Your task to perform on an android device: open app "Reddit" (install if not already installed) Image 0: 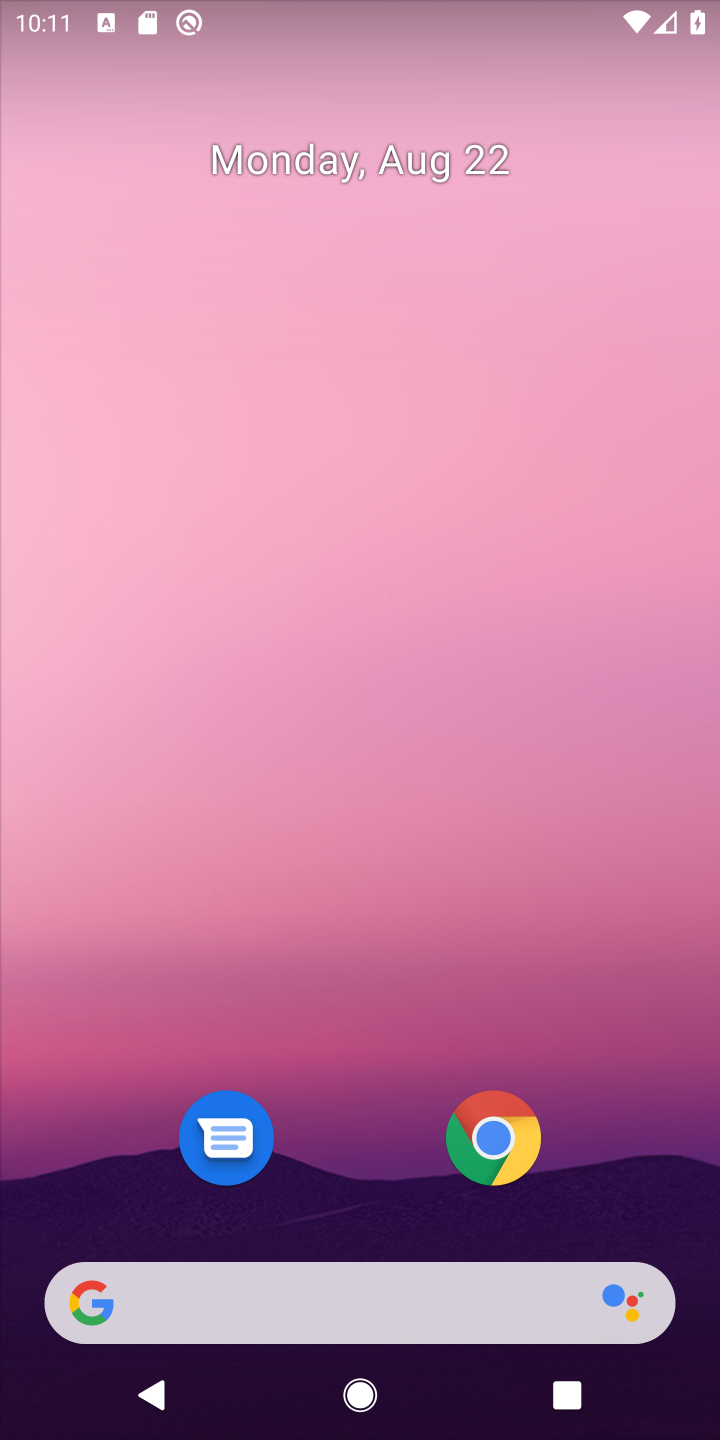
Step 0: drag from (371, 1086) to (345, 94)
Your task to perform on an android device: open app "Reddit" (install if not already installed) Image 1: 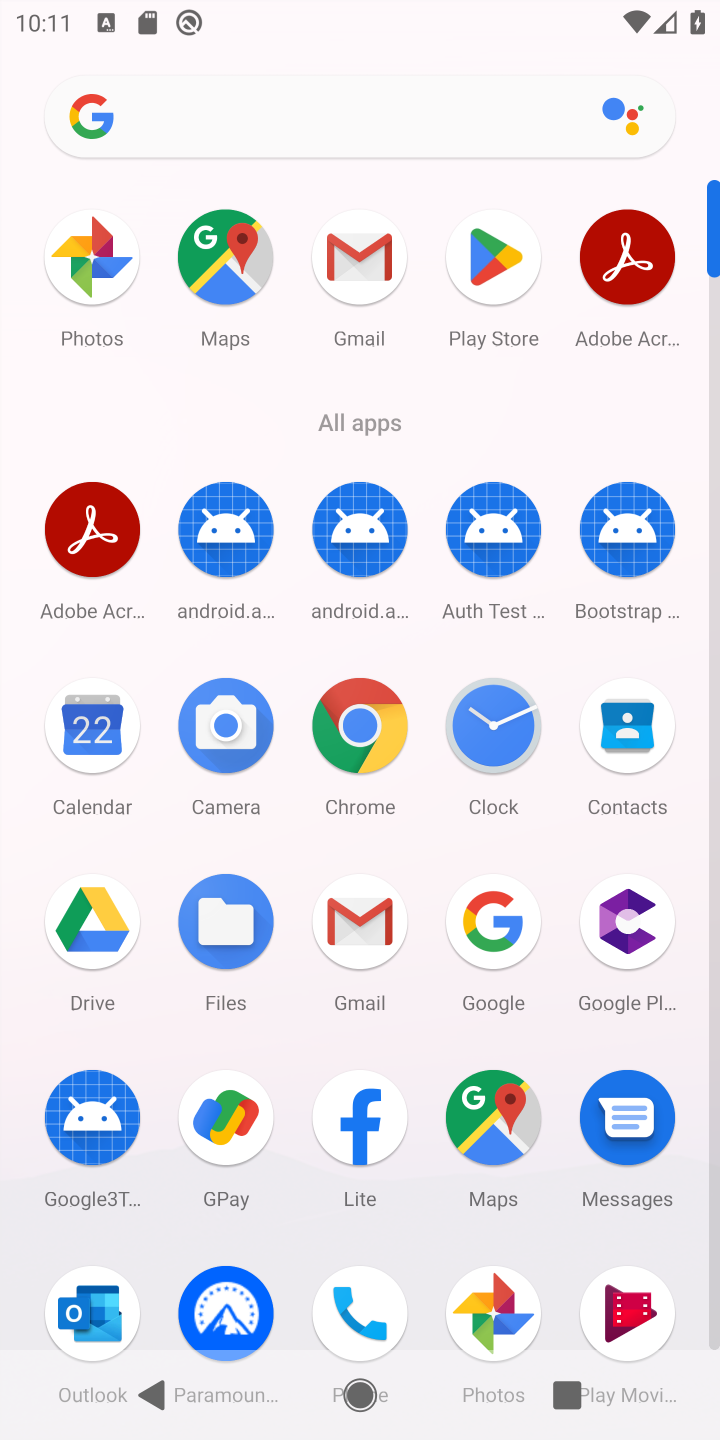
Step 1: click (485, 258)
Your task to perform on an android device: open app "Reddit" (install if not already installed) Image 2: 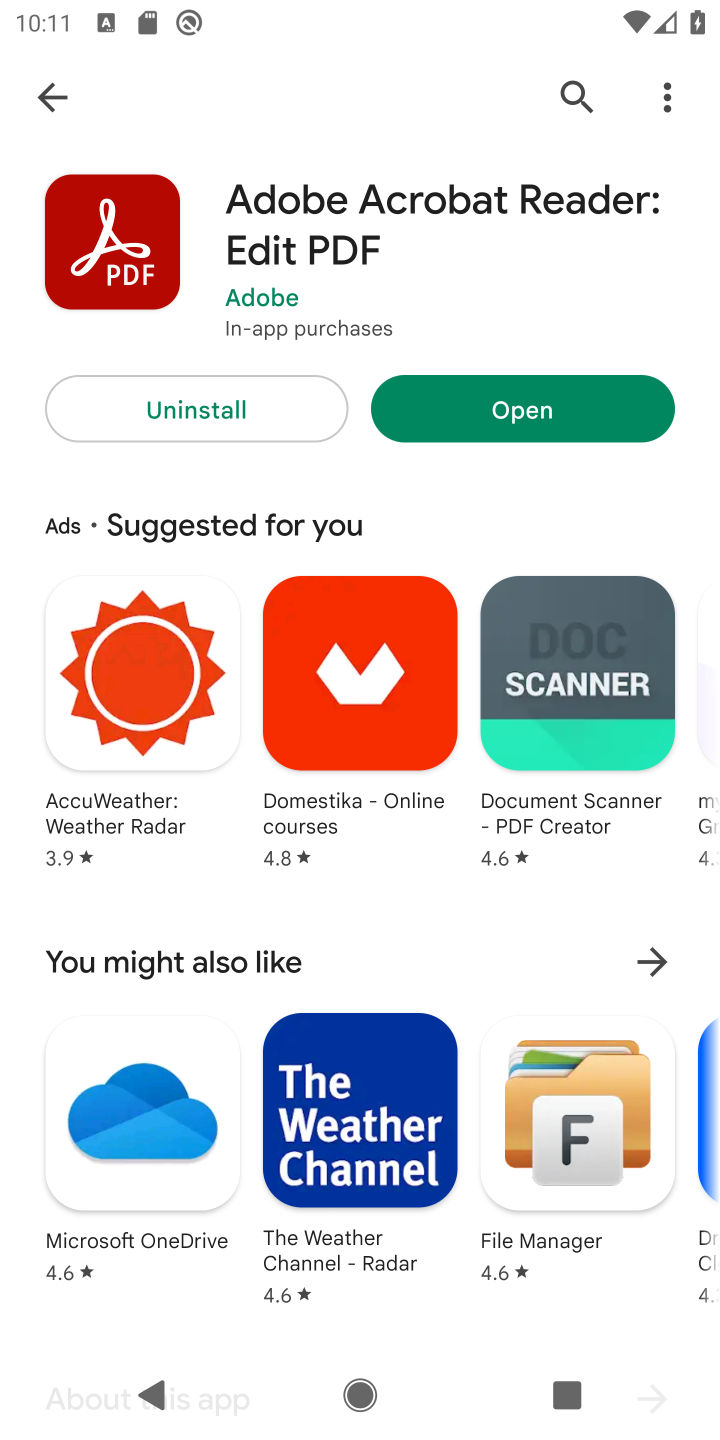
Step 2: click (568, 94)
Your task to perform on an android device: open app "Reddit" (install if not already installed) Image 3: 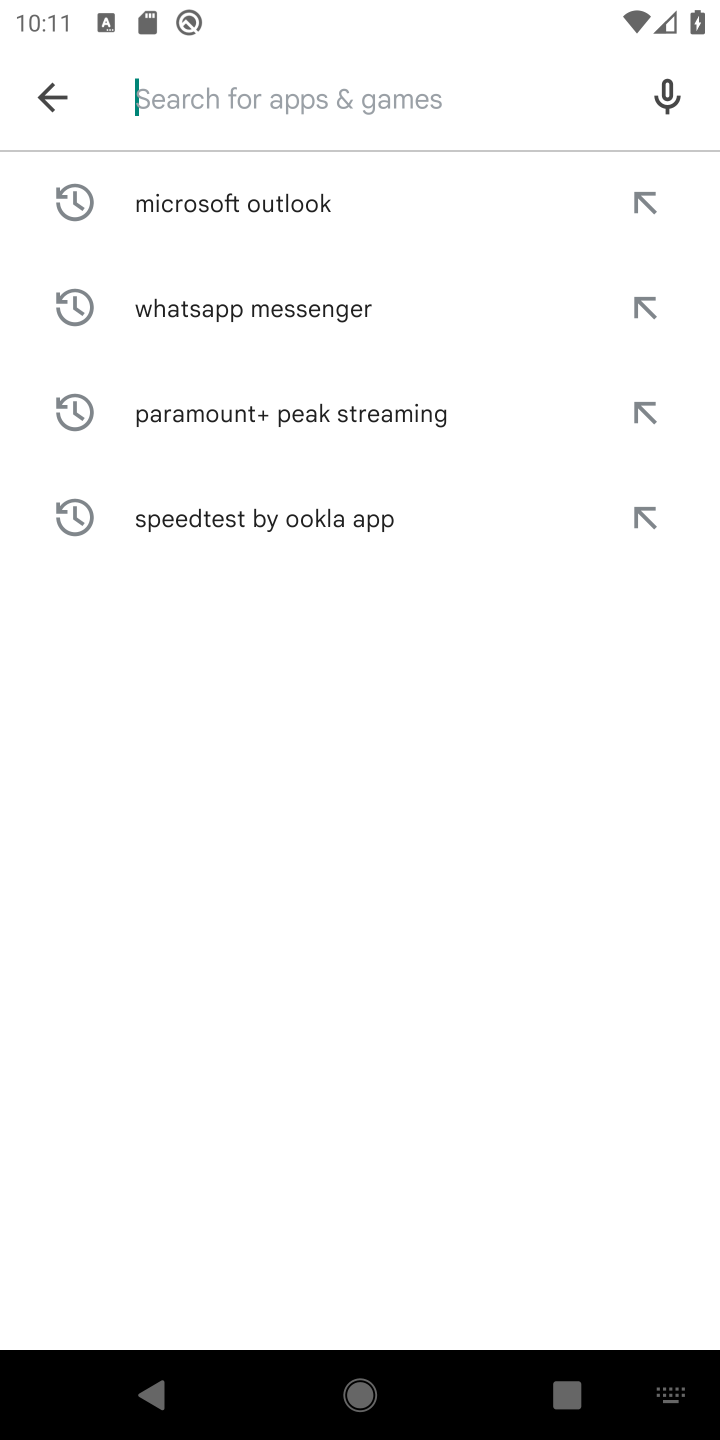
Step 3: type "Reddit"
Your task to perform on an android device: open app "Reddit" (install if not already installed) Image 4: 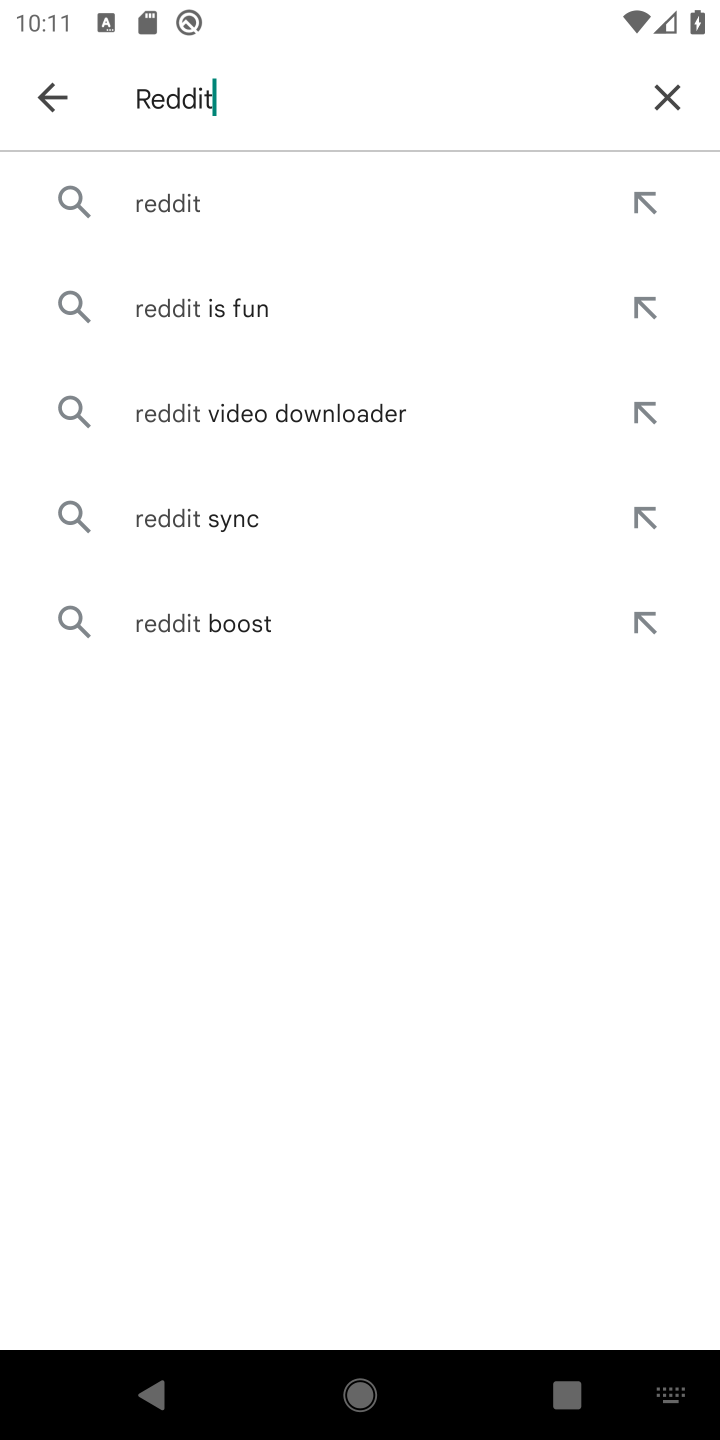
Step 4: click (209, 202)
Your task to perform on an android device: open app "Reddit" (install if not already installed) Image 5: 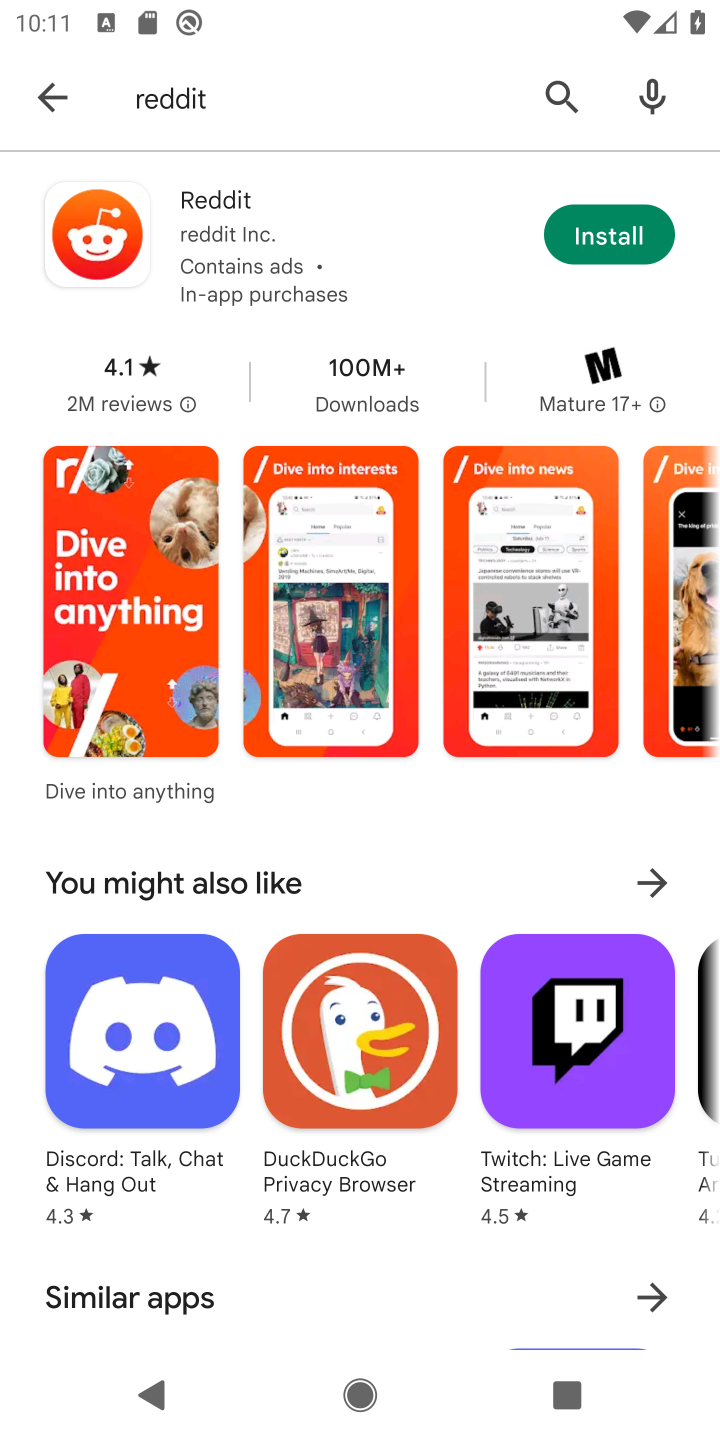
Step 5: click (633, 242)
Your task to perform on an android device: open app "Reddit" (install if not already installed) Image 6: 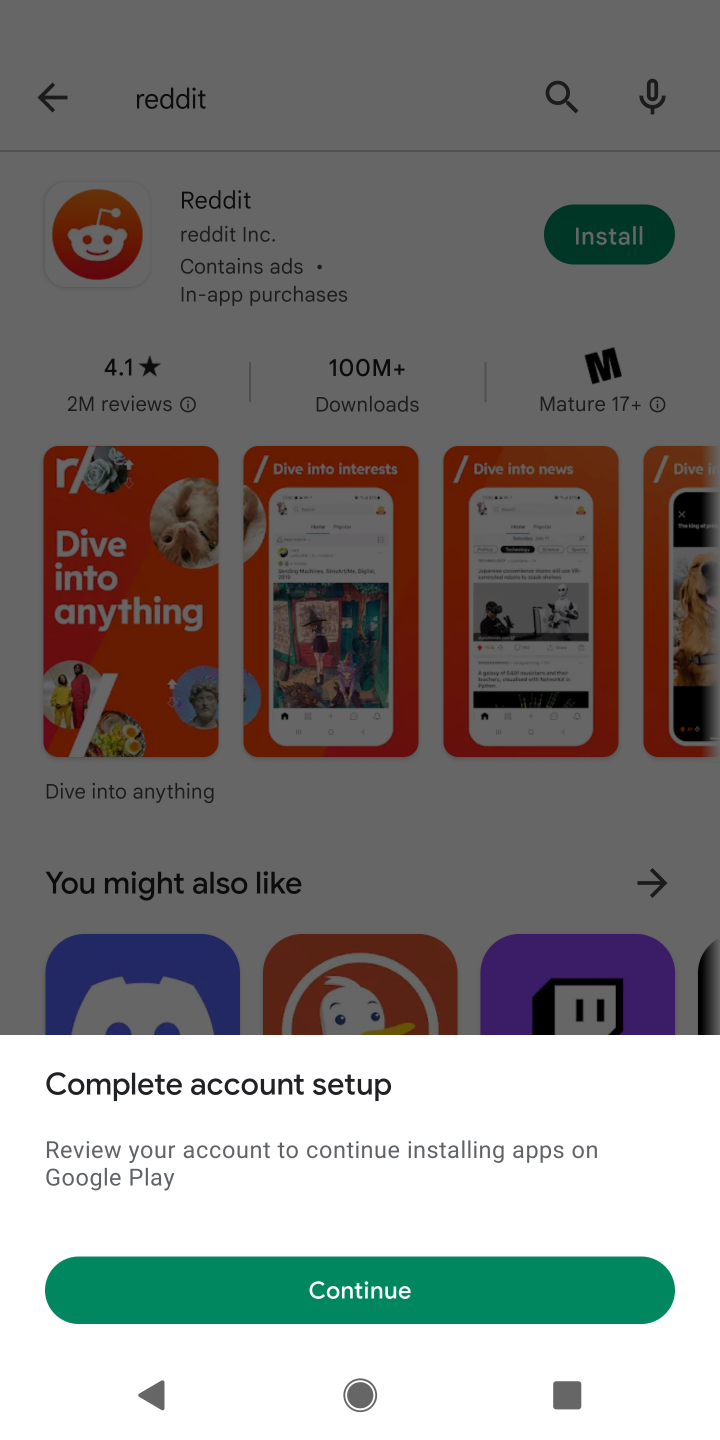
Step 6: click (370, 1282)
Your task to perform on an android device: open app "Reddit" (install if not already installed) Image 7: 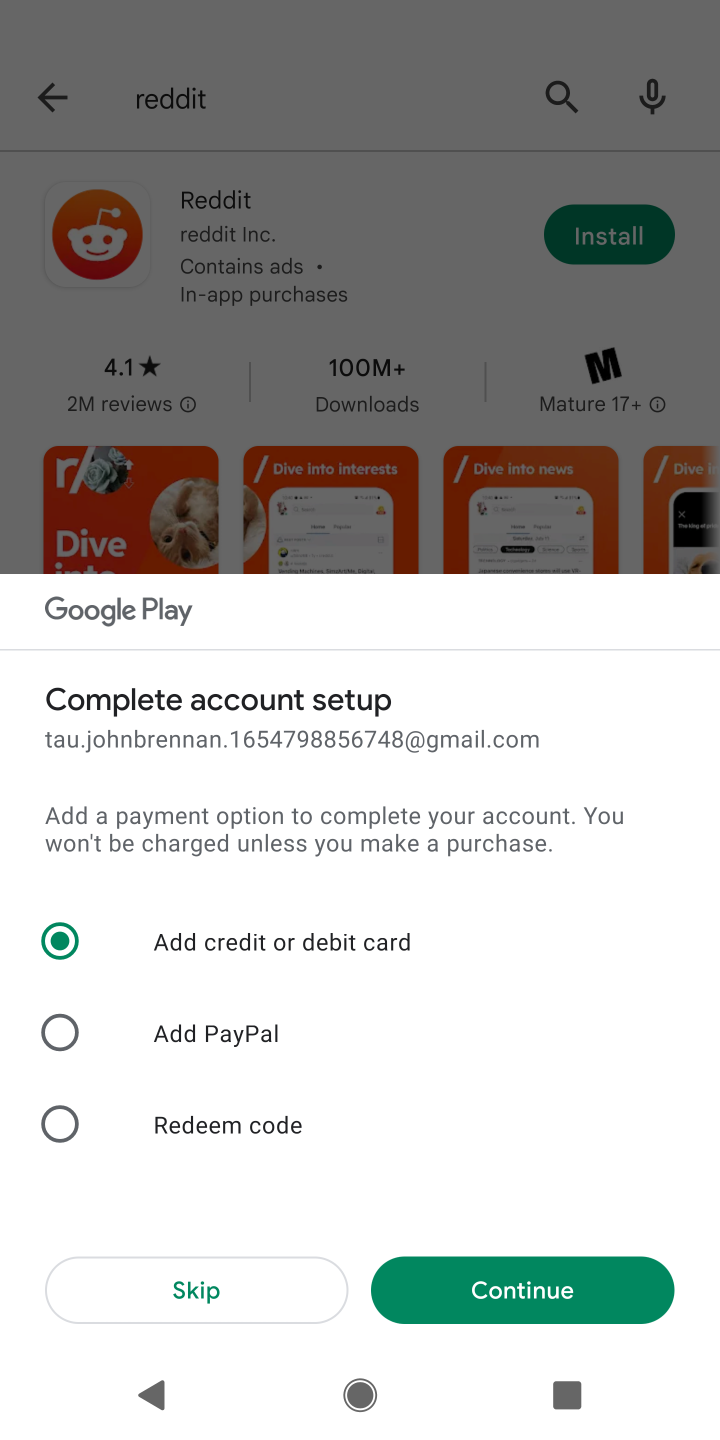
Step 7: click (195, 1291)
Your task to perform on an android device: open app "Reddit" (install if not already installed) Image 8: 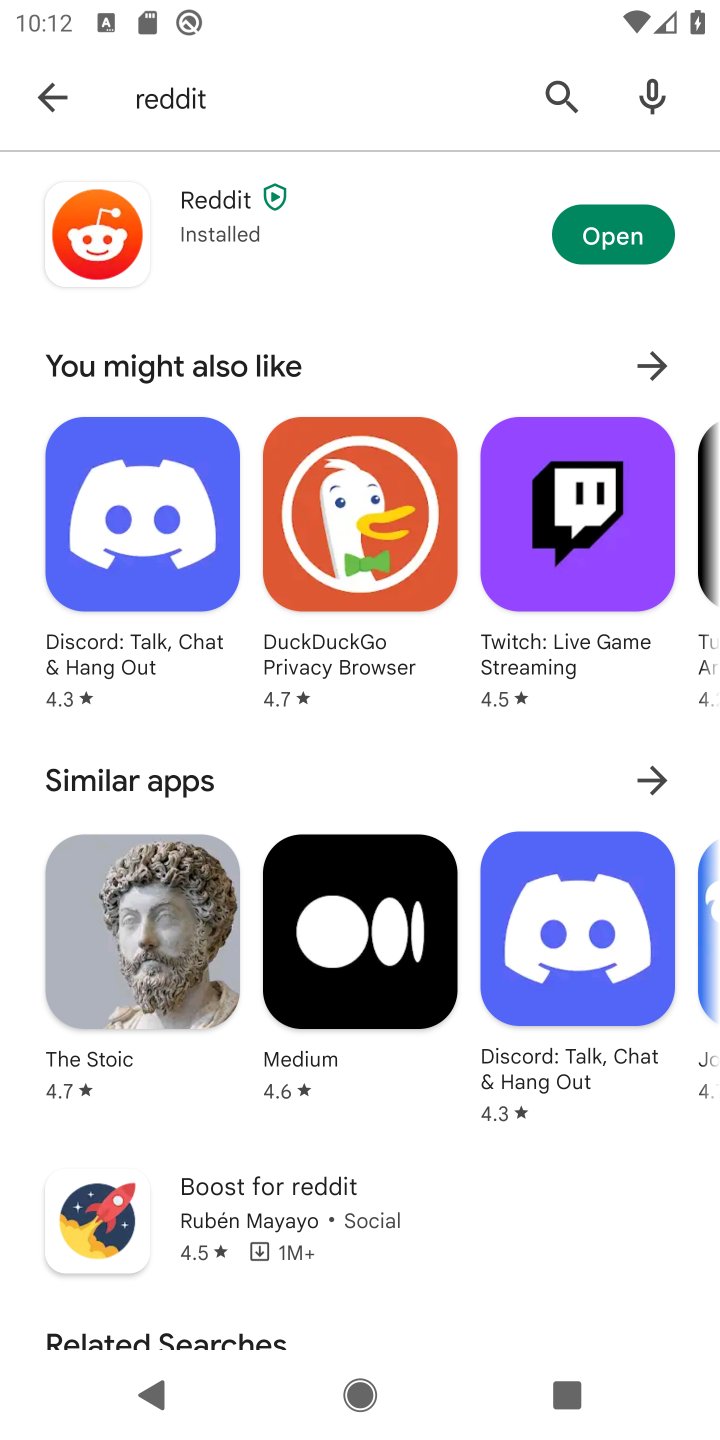
Step 8: click (610, 226)
Your task to perform on an android device: open app "Reddit" (install if not already installed) Image 9: 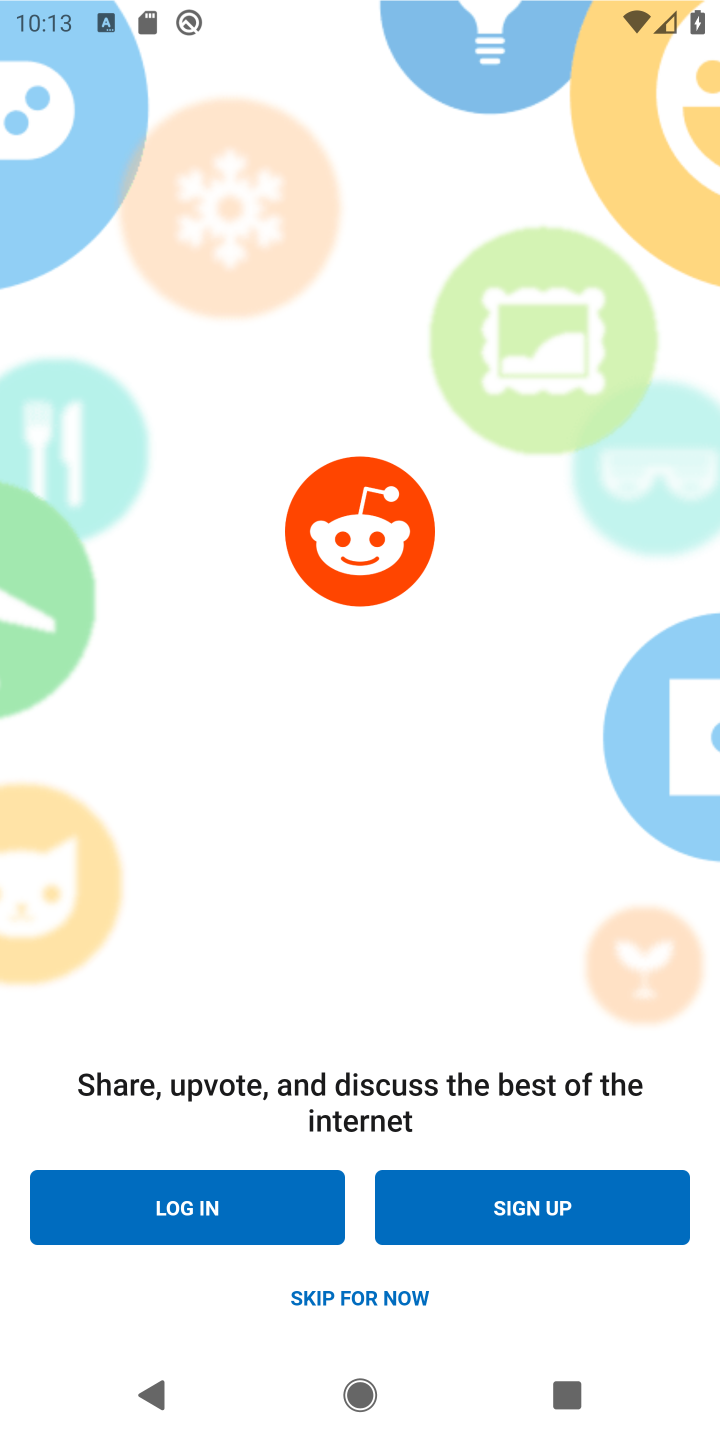
Step 9: click (356, 1289)
Your task to perform on an android device: open app "Reddit" (install if not already installed) Image 10: 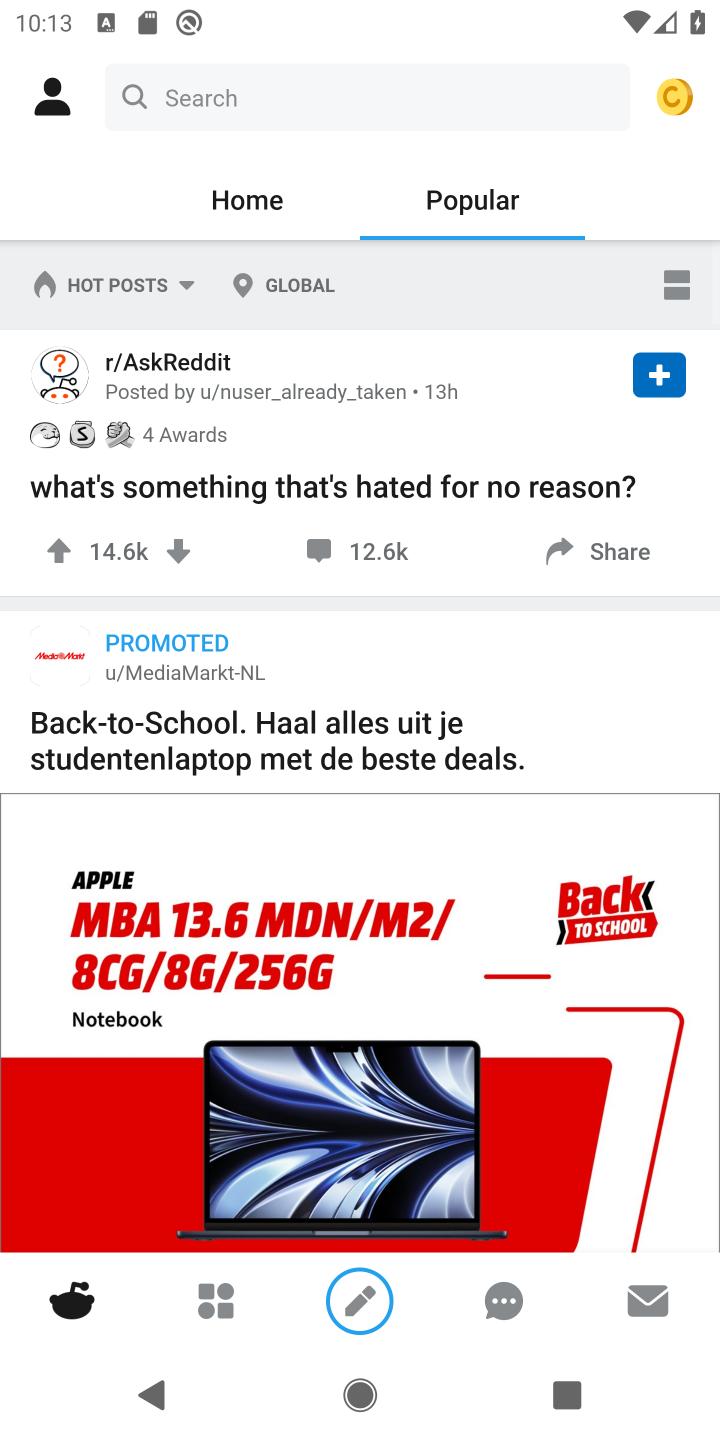
Step 10: click (246, 203)
Your task to perform on an android device: open app "Reddit" (install if not already installed) Image 11: 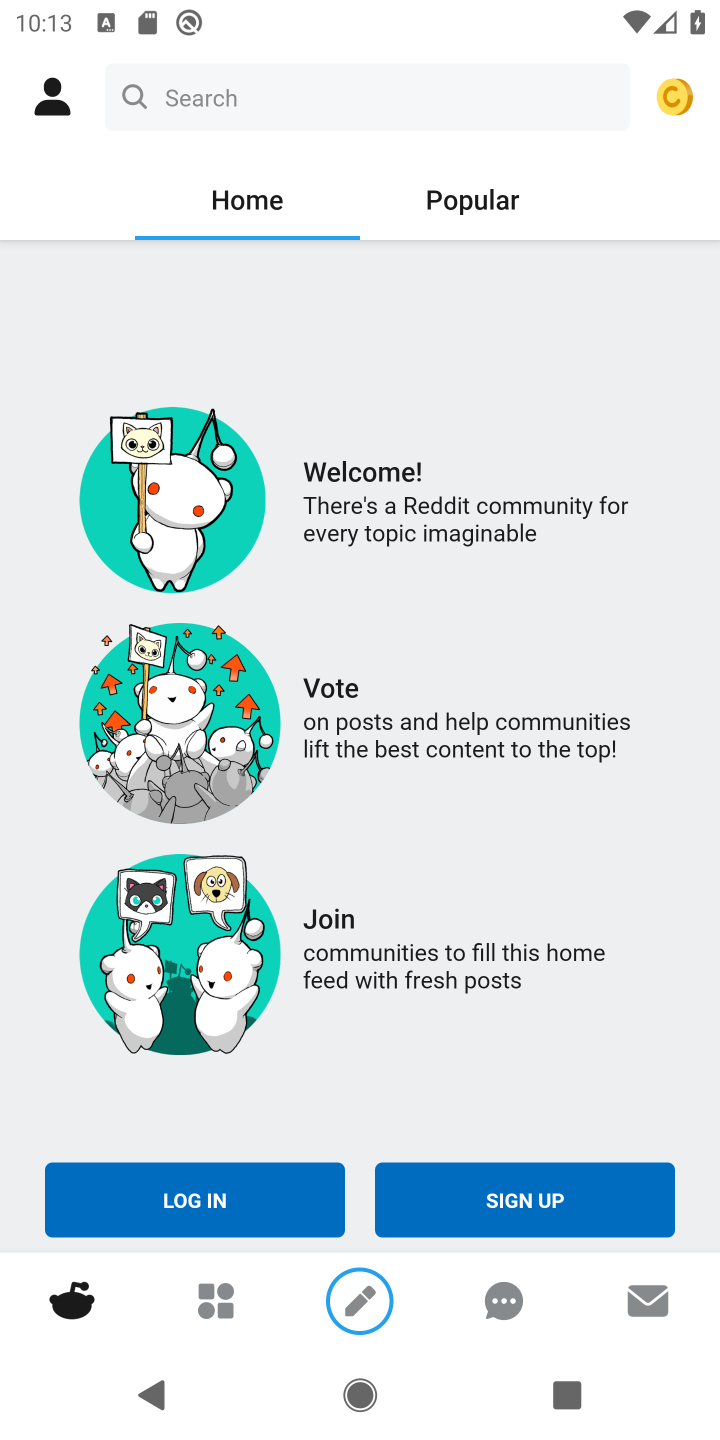
Step 11: click (482, 207)
Your task to perform on an android device: open app "Reddit" (install if not already installed) Image 12: 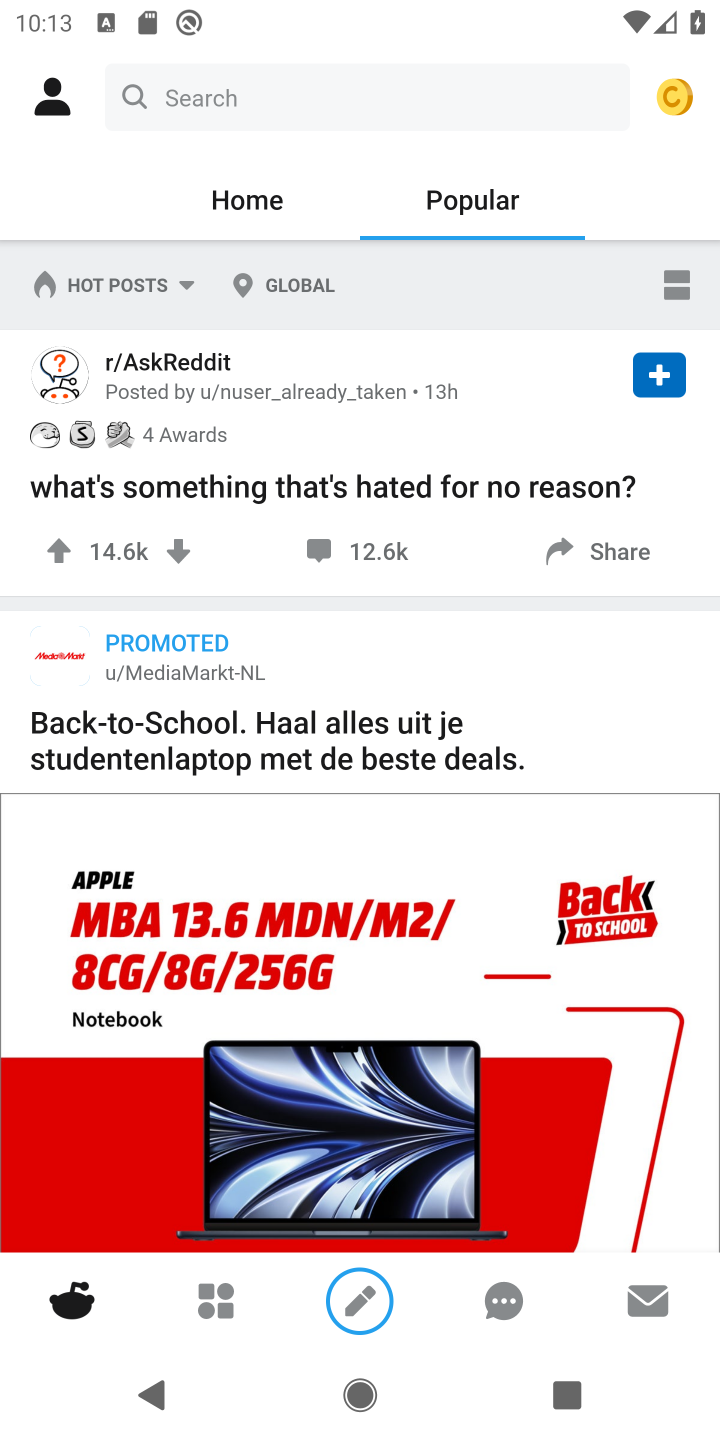
Step 12: task complete